Your task to perform on an android device: check google app version Image 0: 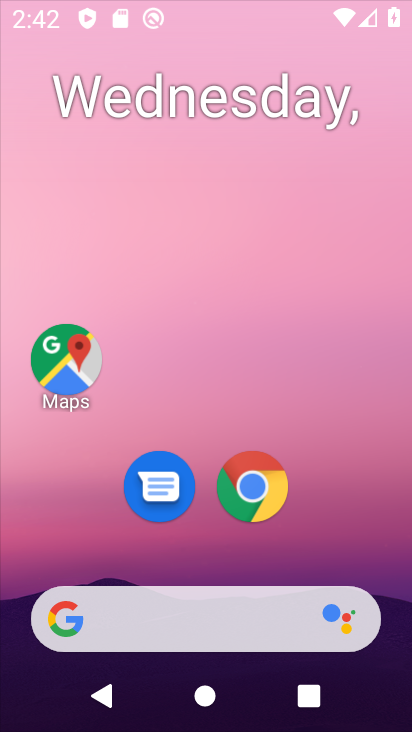
Step 0: drag from (216, 539) to (273, 37)
Your task to perform on an android device: check google app version Image 1: 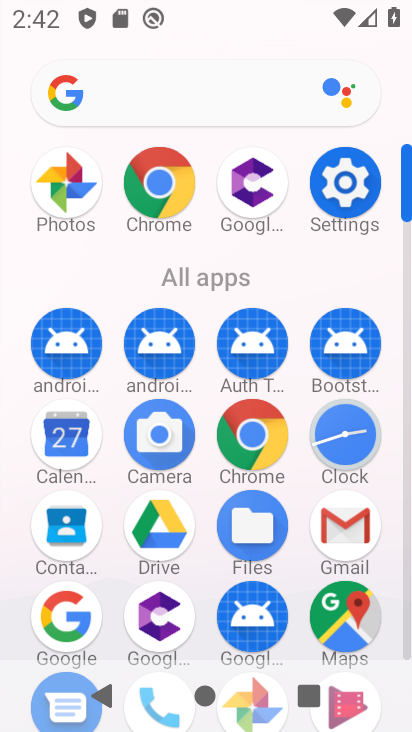
Step 1: click (350, 190)
Your task to perform on an android device: check google app version Image 2: 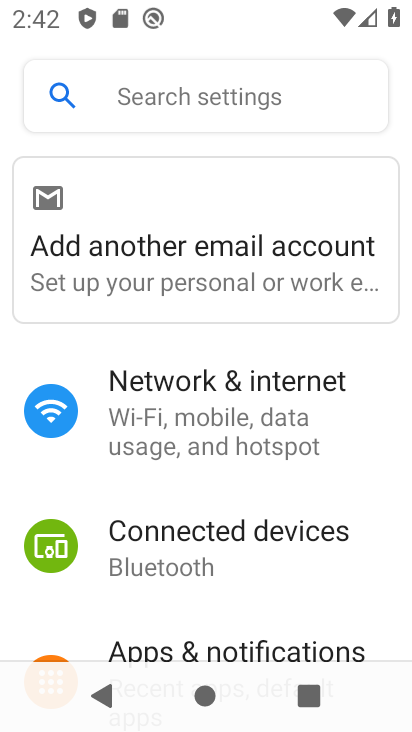
Step 2: press back button
Your task to perform on an android device: check google app version Image 3: 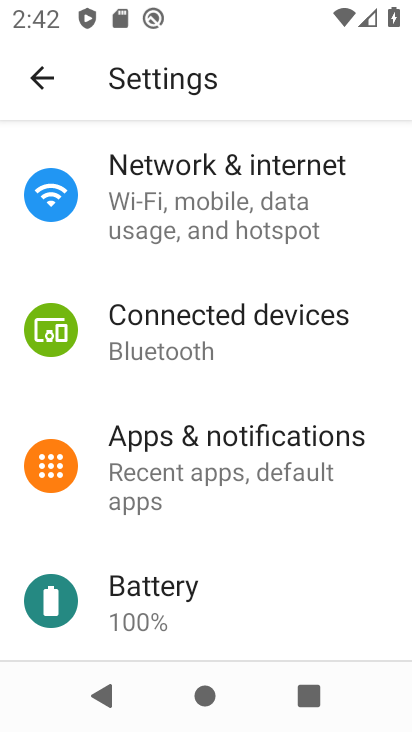
Step 3: press back button
Your task to perform on an android device: check google app version Image 4: 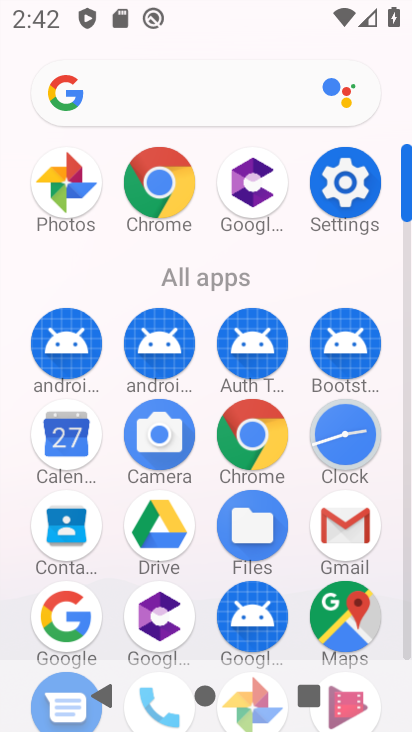
Step 4: drag from (203, 552) to (275, 147)
Your task to perform on an android device: check google app version Image 5: 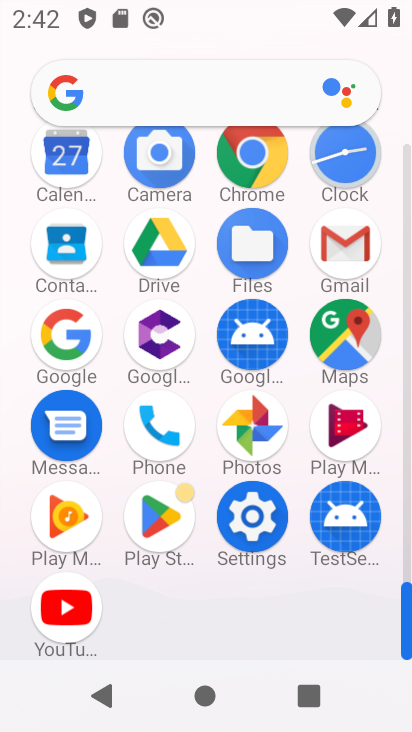
Step 5: click (60, 344)
Your task to perform on an android device: check google app version Image 6: 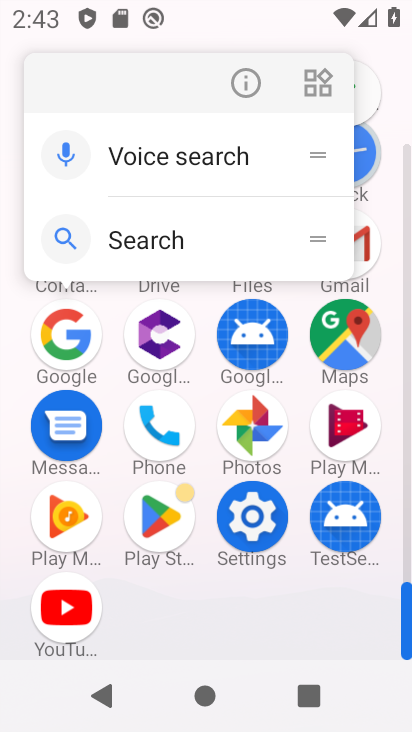
Step 6: click (262, 82)
Your task to perform on an android device: check google app version Image 7: 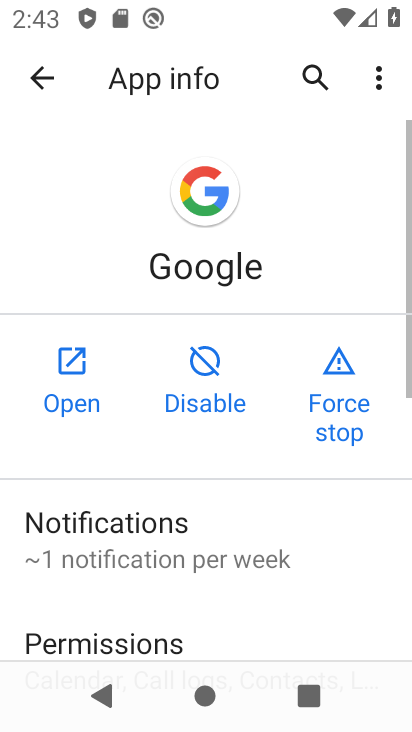
Step 7: drag from (164, 605) to (281, 75)
Your task to perform on an android device: check google app version Image 8: 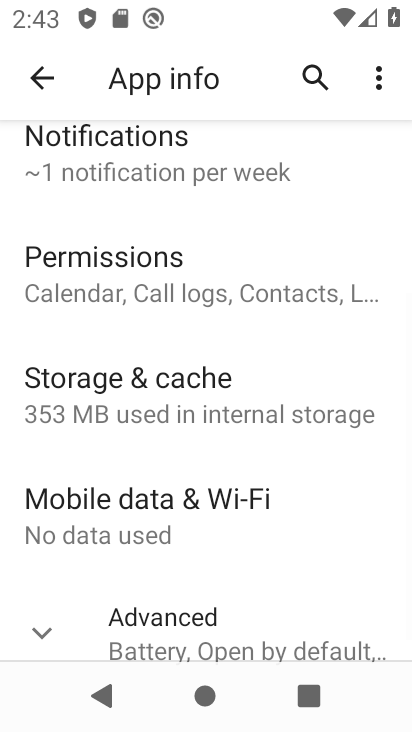
Step 8: drag from (204, 577) to (301, 0)
Your task to perform on an android device: check google app version Image 9: 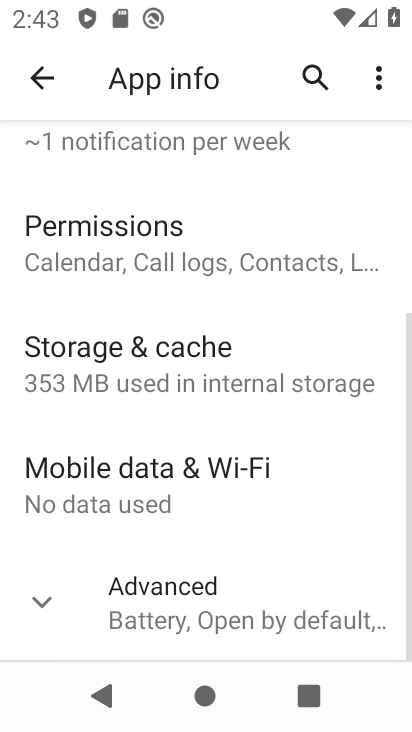
Step 9: drag from (249, 636) to (323, 165)
Your task to perform on an android device: check google app version Image 10: 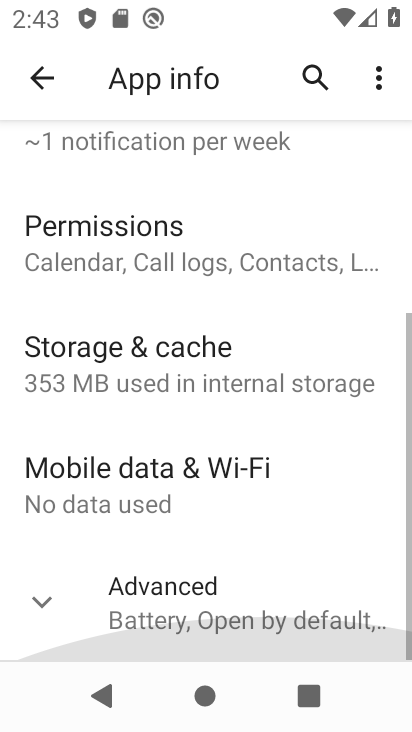
Step 10: click (192, 595)
Your task to perform on an android device: check google app version Image 11: 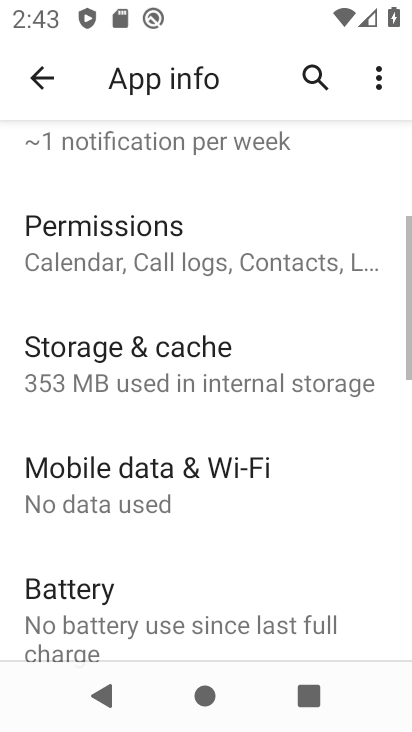
Step 11: task complete